Your task to perform on an android device: delete browsing data in the chrome app Image 0: 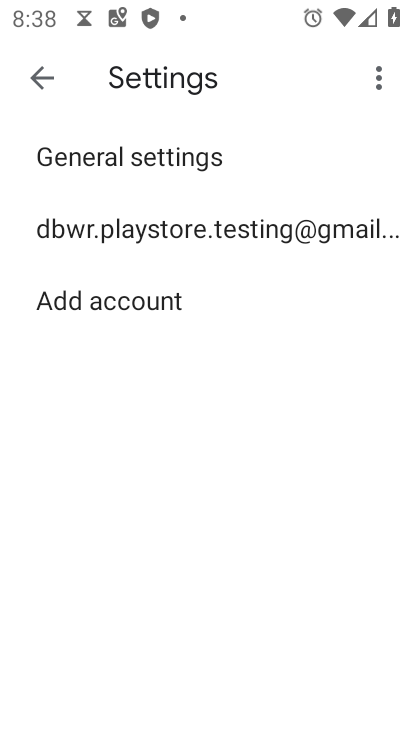
Step 0: press back button
Your task to perform on an android device: delete browsing data in the chrome app Image 1: 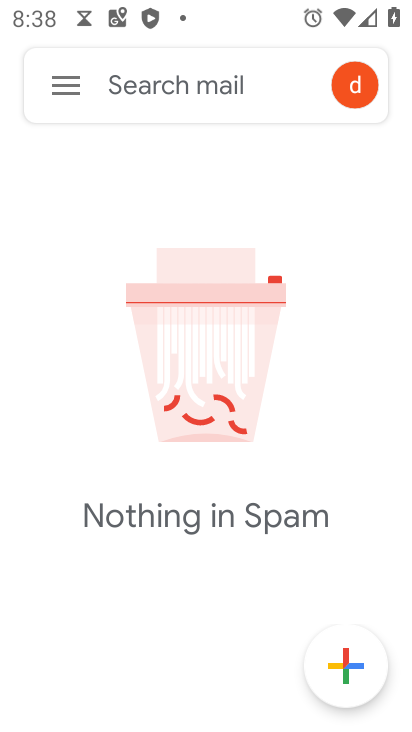
Step 1: press home button
Your task to perform on an android device: delete browsing data in the chrome app Image 2: 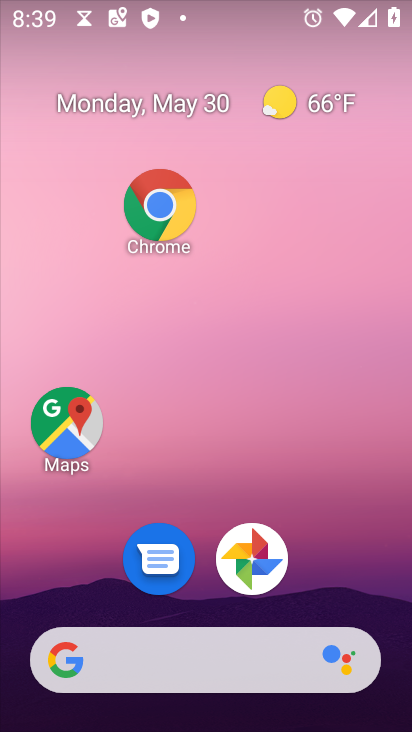
Step 2: drag from (207, 697) to (168, 82)
Your task to perform on an android device: delete browsing data in the chrome app Image 3: 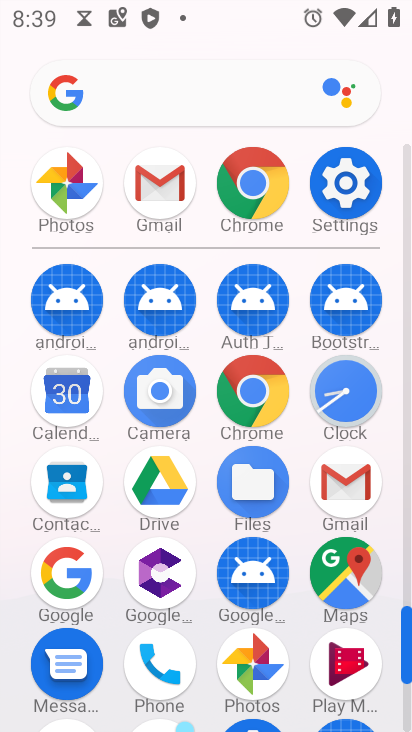
Step 3: click (251, 200)
Your task to perform on an android device: delete browsing data in the chrome app Image 4: 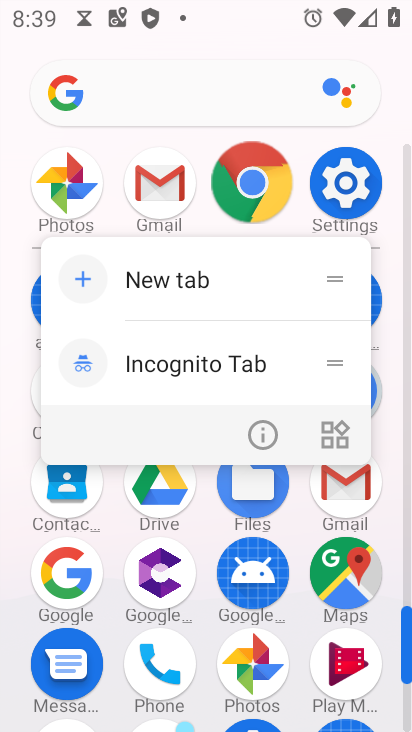
Step 4: click (255, 197)
Your task to perform on an android device: delete browsing data in the chrome app Image 5: 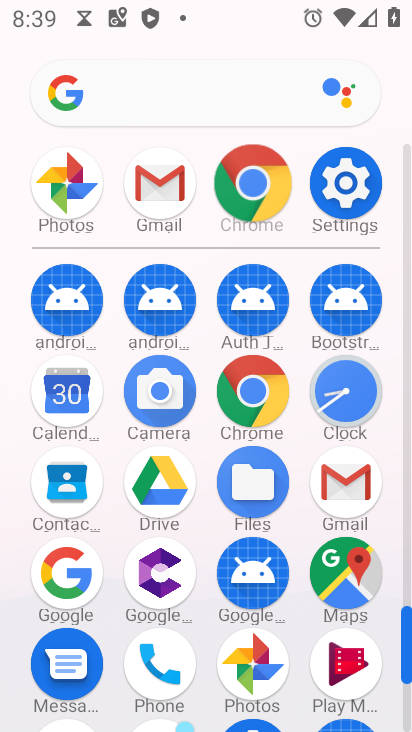
Step 5: click (257, 198)
Your task to perform on an android device: delete browsing data in the chrome app Image 6: 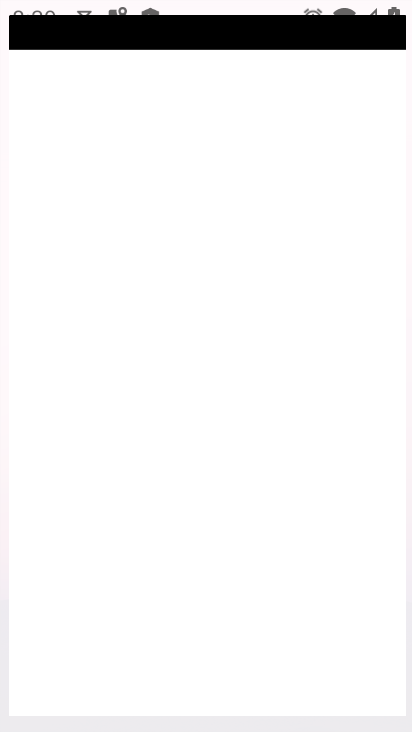
Step 6: click (257, 198)
Your task to perform on an android device: delete browsing data in the chrome app Image 7: 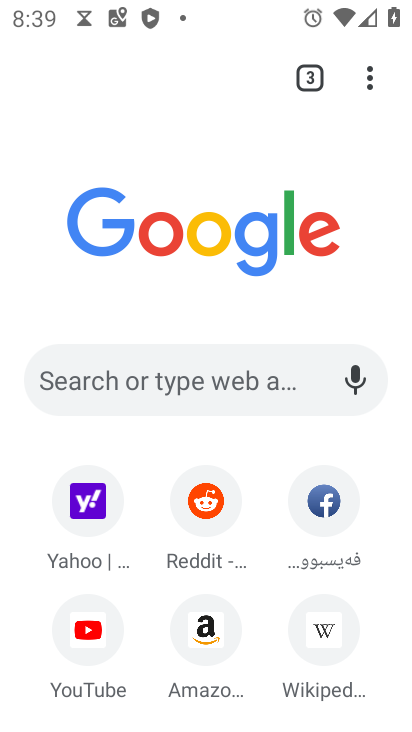
Step 7: drag from (367, 84) to (97, 614)
Your task to perform on an android device: delete browsing data in the chrome app Image 8: 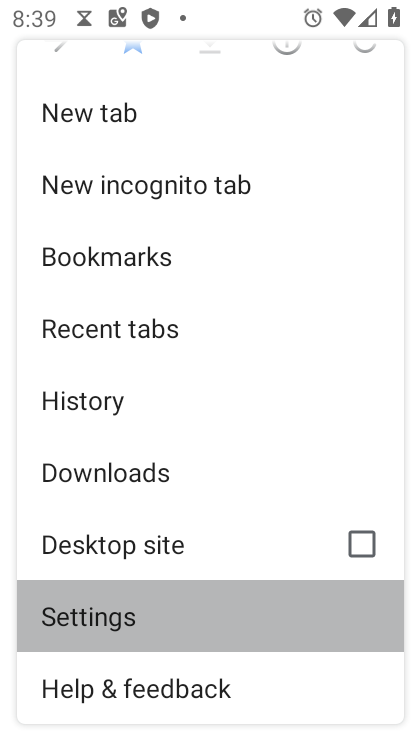
Step 8: click (96, 615)
Your task to perform on an android device: delete browsing data in the chrome app Image 9: 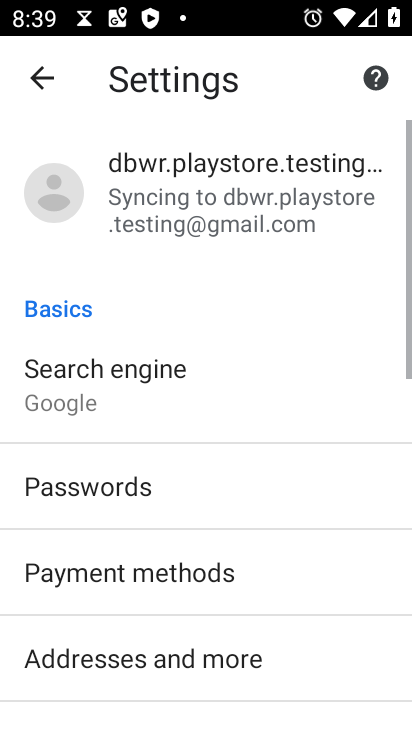
Step 9: drag from (137, 569) to (117, 216)
Your task to perform on an android device: delete browsing data in the chrome app Image 10: 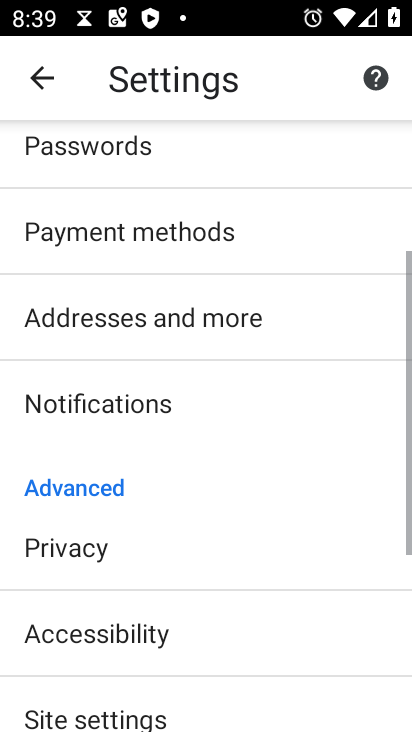
Step 10: drag from (119, 498) to (110, 129)
Your task to perform on an android device: delete browsing data in the chrome app Image 11: 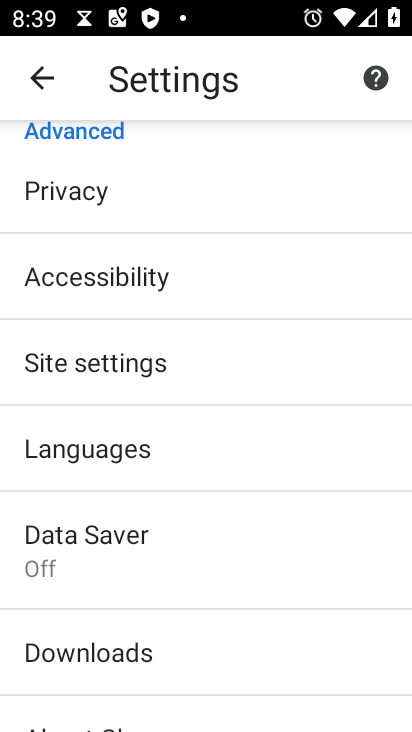
Step 11: click (82, 359)
Your task to perform on an android device: delete browsing data in the chrome app Image 12: 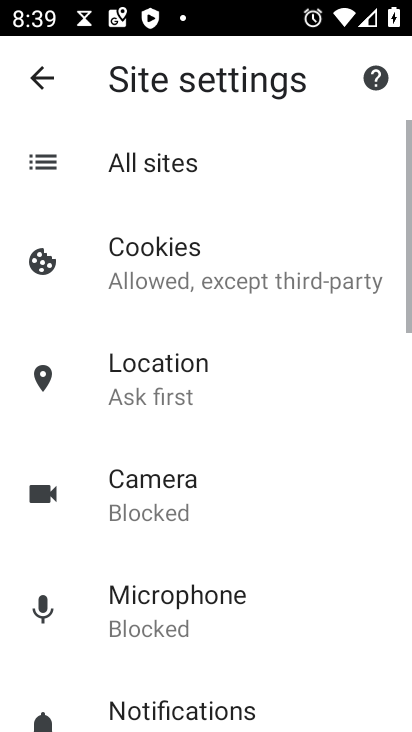
Step 12: click (36, 72)
Your task to perform on an android device: delete browsing data in the chrome app Image 13: 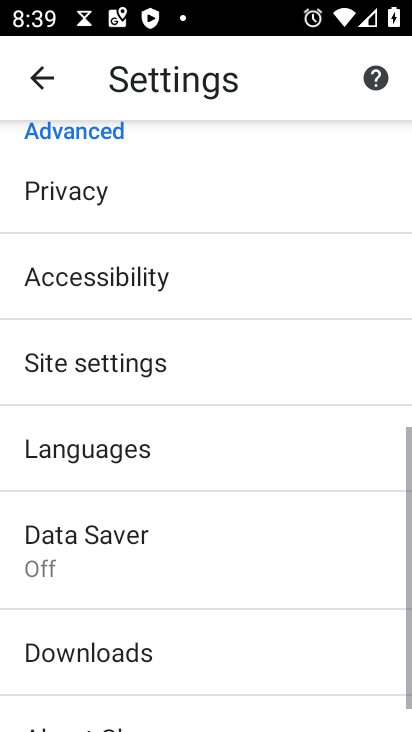
Step 13: drag from (148, 388) to (147, 624)
Your task to perform on an android device: delete browsing data in the chrome app Image 14: 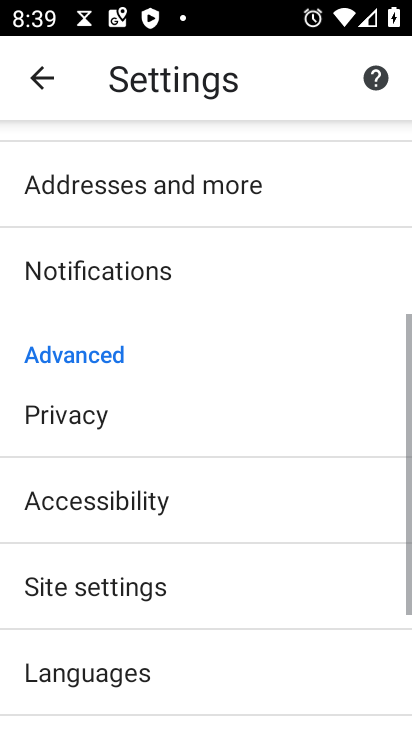
Step 14: drag from (299, 275) to (238, 577)
Your task to perform on an android device: delete browsing data in the chrome app Image 15: 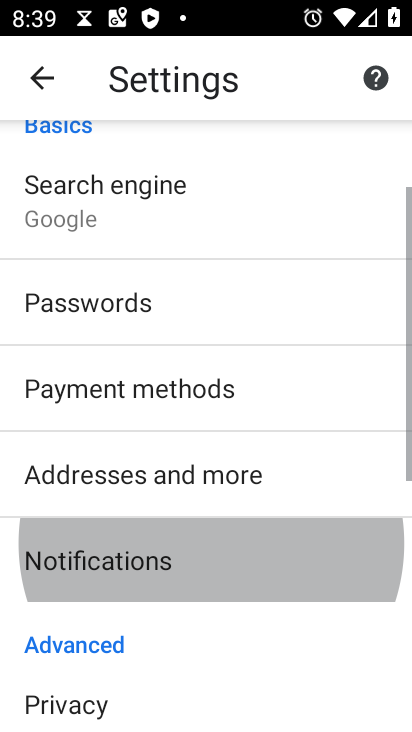
Step 15: drag from (249, 263) to (251, 581)
Your task to perform on an android device: delete browsing data in the chrome app Image 16: 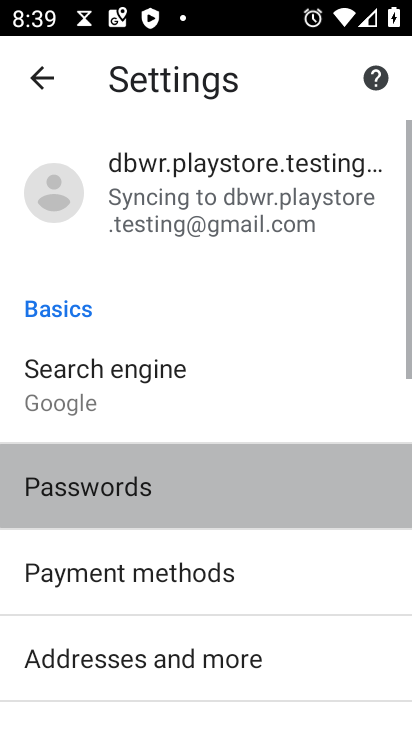
Step 16: drag from (200, 459) to (186, 603)
Your task to perform on an android device: delete browsing data in the chrome app Image 17: 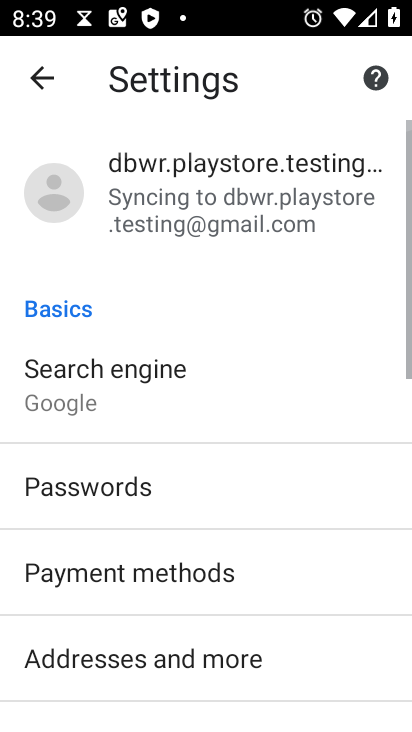
Step 17: drag from (189, 259) to (197, 618)
Your task to perform on an android device: delete browsing data in the chrome app Image 18: 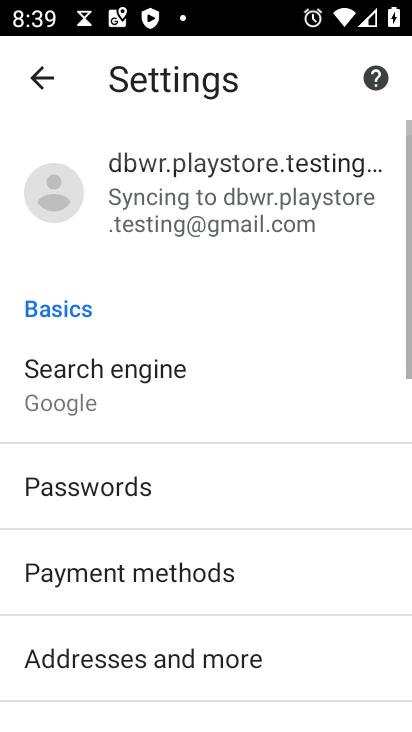
Step 18: drag from (238, 352) to (223, 629)
Your task to perform on an android device: delete browsing data in the chrome app Image 19: 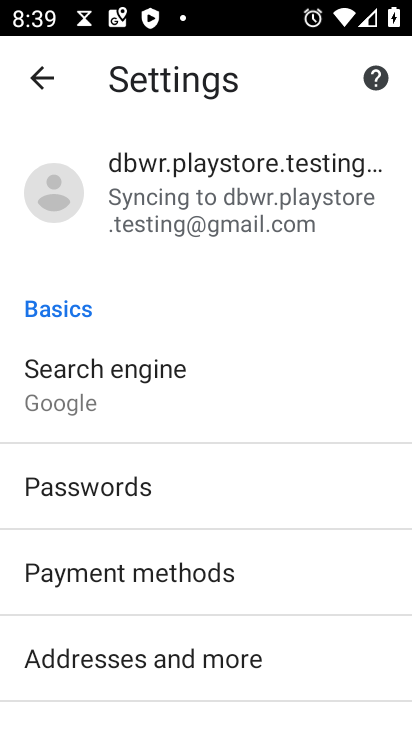
Step 19: drag from (182, 590) to (203, 327)
Your task to perform on an android device: delete browsing data in the chrome app Image 20: 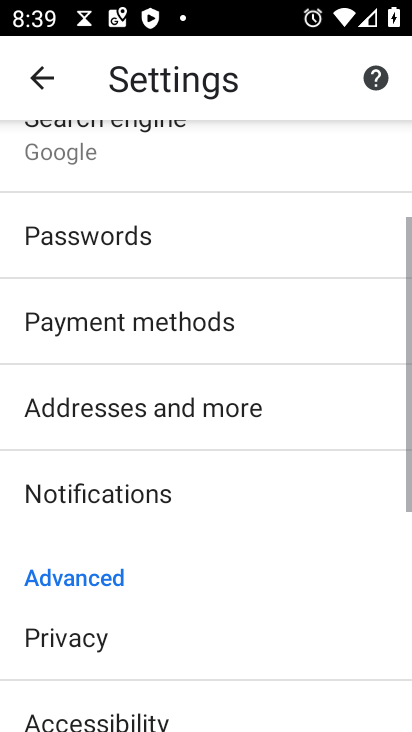
Step 20: drag from (180, 463) to (190, 132)
Your task to perform on an android device: delete browsing data in the chrome app Image 21: 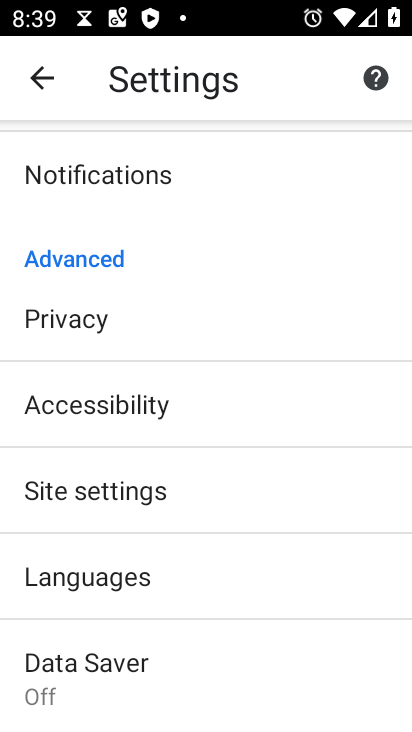
Step 21: drag from (154, 331) to (143, 605)
Your task to perform on an android device: delete browsing data in the chrome app Image 22: 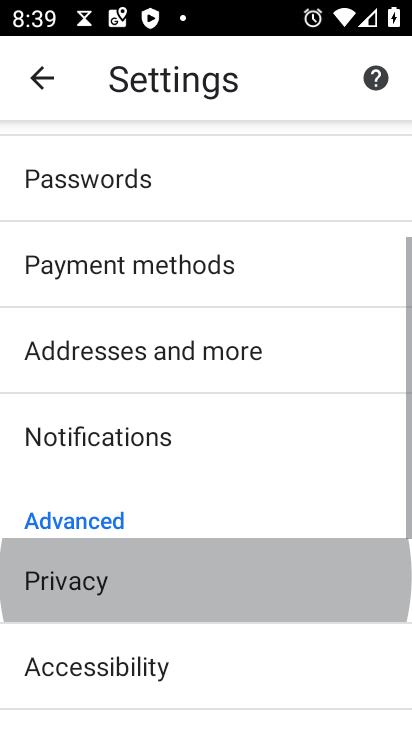
Step 22: drag from (188, 254) to (259, 587)
Your task to perform on an android device: delete browsing data in the chrome app Image 23: 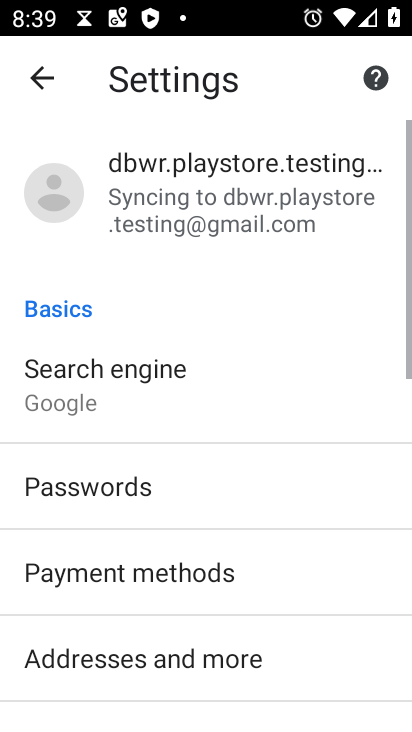
Step 23: drag from (257, 279) to (241, 597)
Your task to perform on an android device: delete browsing data in the chrome app Image 24: 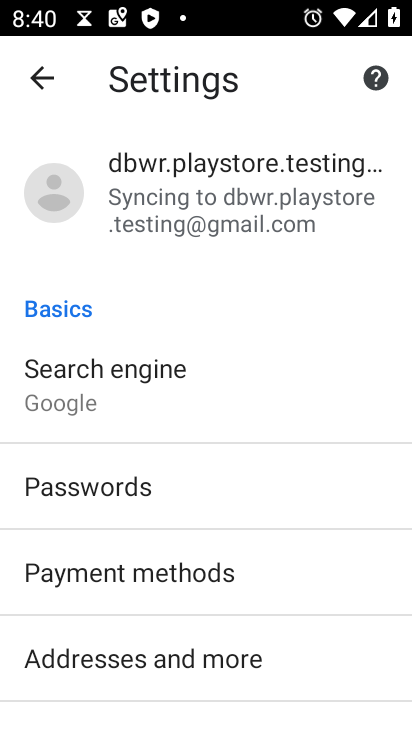
Step 24: drag from (110, 629) to (150, 322)
Your task to perform on an android device: delete browsing data in the chrome app Image 25: 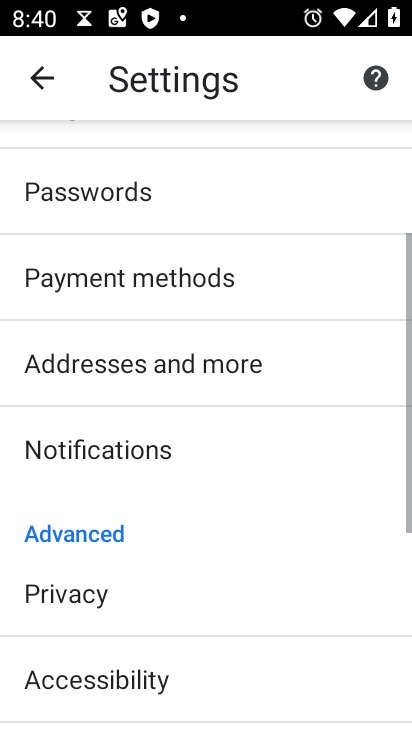
Step 25: drag from (135, 509) to (86, 256)
Your task to perform on an android device: delete browsing data in the chrome app Image 26: 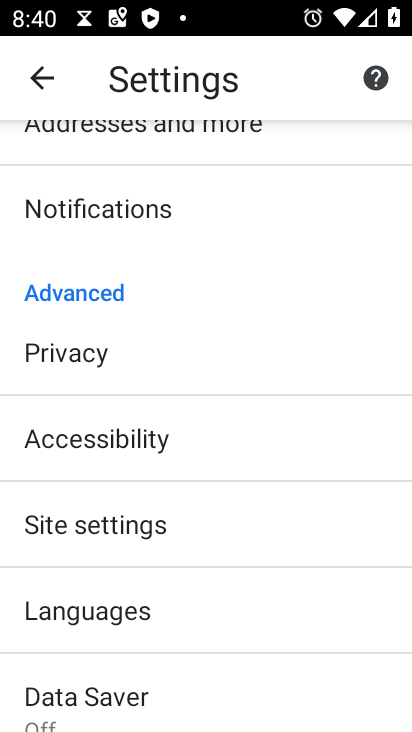
Step 26: drag from (123, 276) to (162, 524)
Your task to perform on an android device: delete browsing data in the chrome app Image 27: 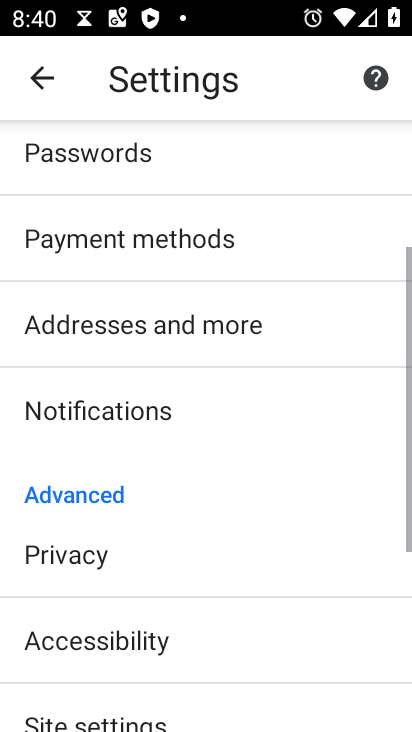
Step 27: drag from (208, 388) to (209, 585)
Your task to perform on an android device: delete browsing data in the chrome app Image 28: 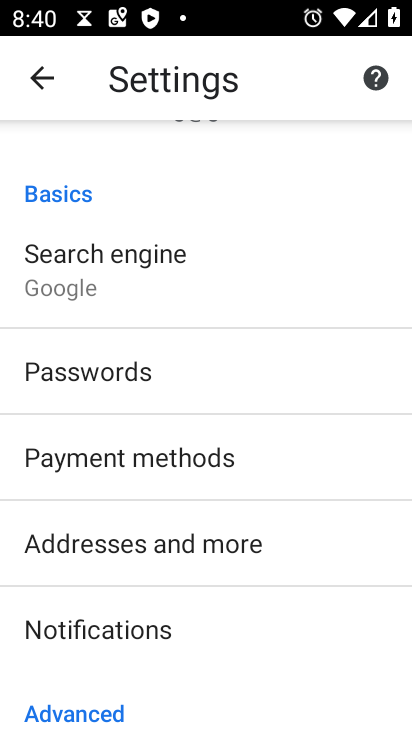
Step 28: click (42, 83)
Your task to perform on an android device: delete browsing data in the chrome app Image 29: 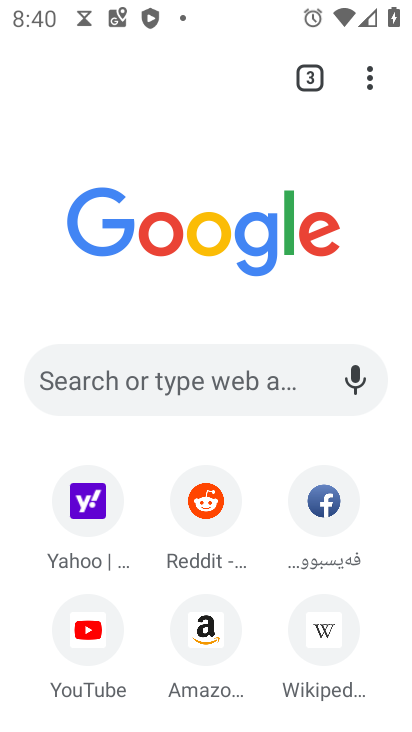
Step 29: click (369, 83)
Your task to perform on an android device: delete browsing data in the chrome app Image 30: 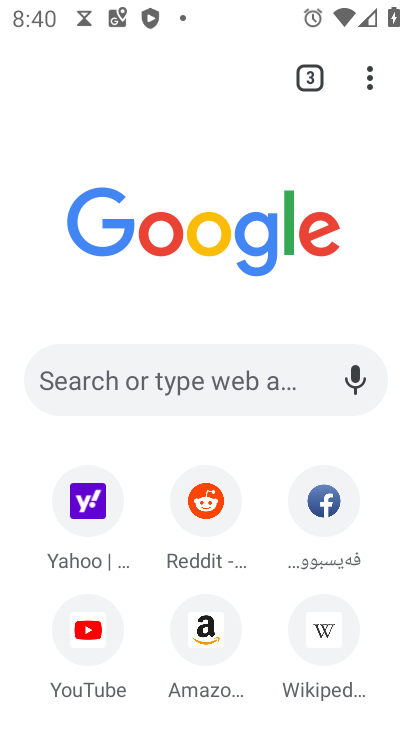
Step 30: click (366, 85)
Your task to perform on an android device: delete browsing data in the chrome app Image 31: 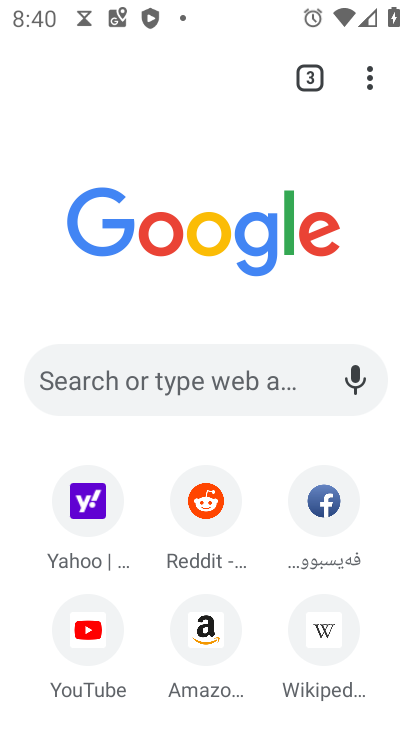
Step 31: click (370, 81)
Your task to perform on an android device: delete browsing data in the chrome app Image 32: 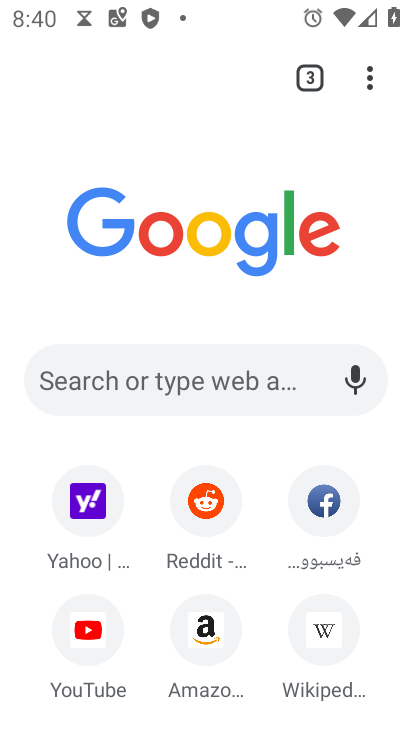
Step 32: click (370, 83)
Your task to perform on an android device: delete browsing data in the chrome app Image 33: 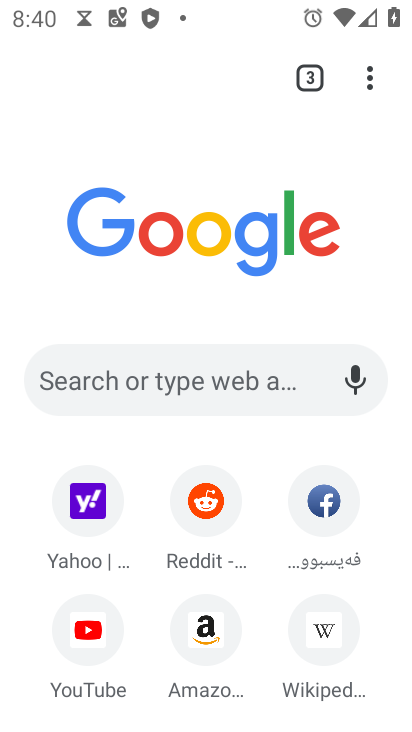
Step 33: drag from (369, 89) to (83, 399)
Your task to perform on an android device: delete browsing data in the chrome app Image 34: 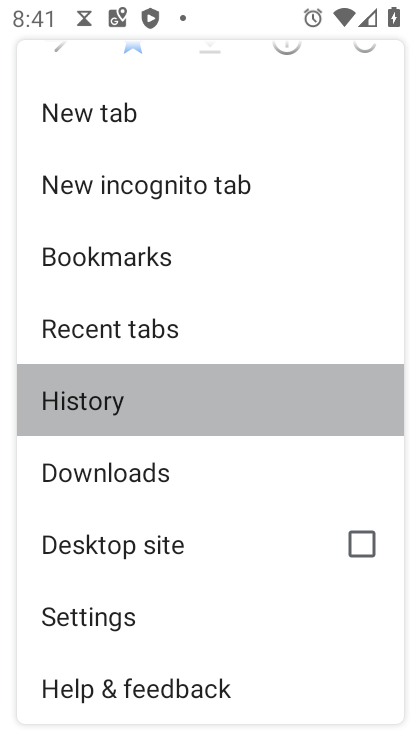
Step 34: click (70, 409)
Your task to perform on an android device: delete browsing data in the chrome app Image 35: 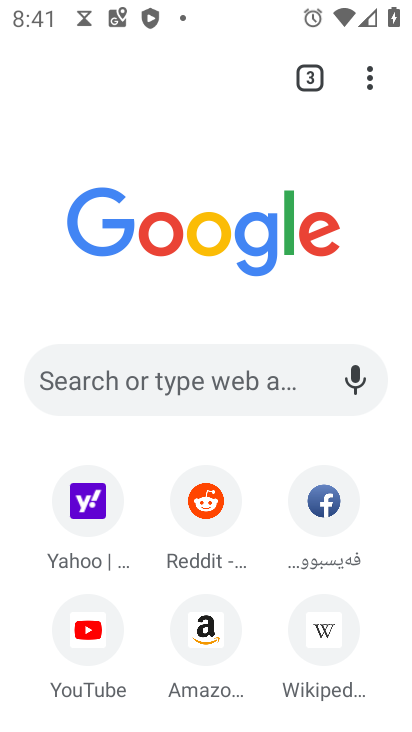
Step 35: click (81, 407)
Your task to perform on an android device: delete browsing data in the chrome app Image 36: 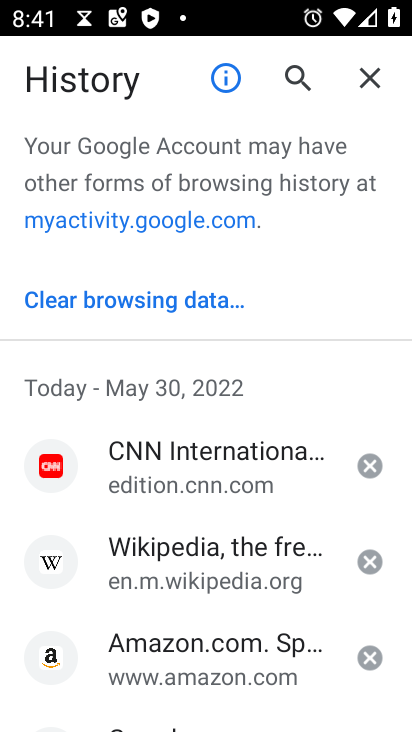
Step 36: drag from (198, 526) to (161, 129)
Your task to perform on an android device: delete browsing data in the chrome app Image 37: 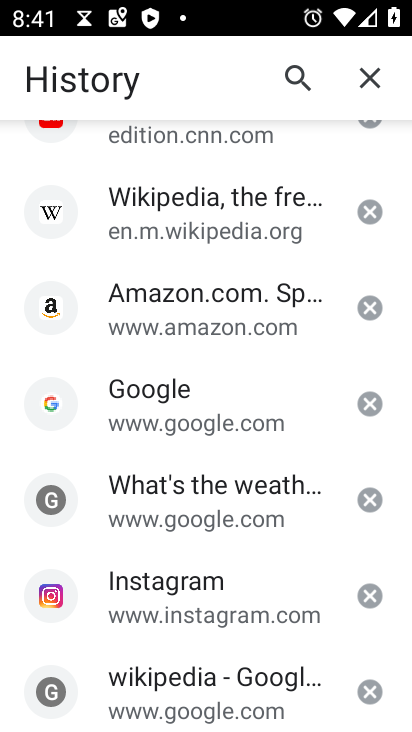
Step 37: drag from (173, 490) to (193, 87)
Your task to perform on an android device: delete browsing data in the chrome app Image 38: 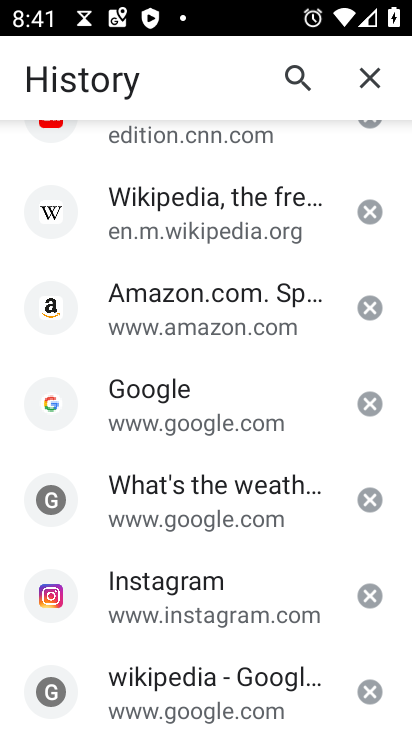
Step 38: drag from (139, 452) to (130, 205)
Your task to perform on an android device: delete browsing data in the chrome app Image 39: 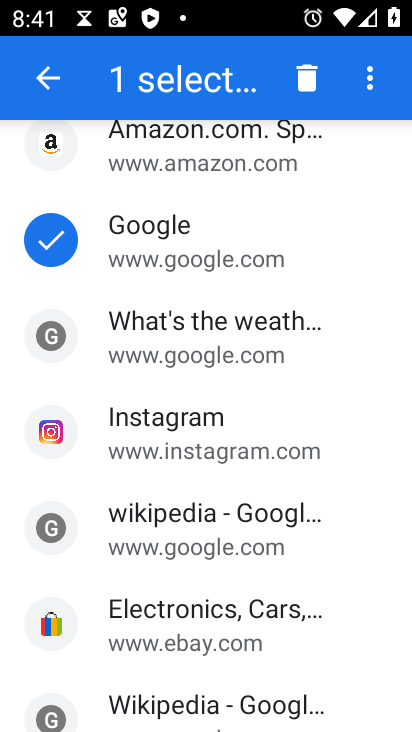
Step 39: click (37, 73)
Your task to perform on an android device: delete browsing data in the chrome app Image 40: 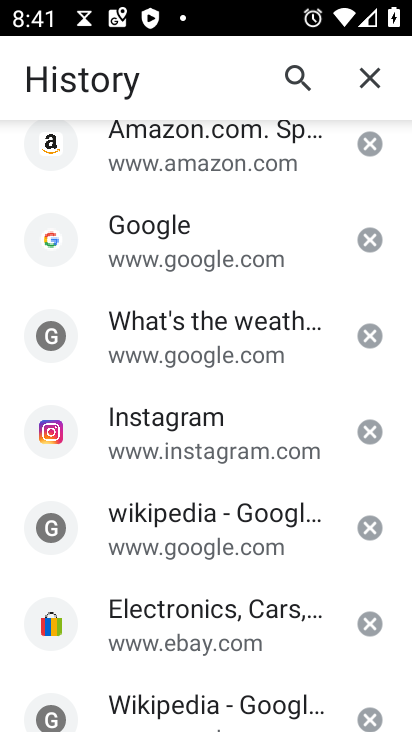
Step 40: drag from (197, 452) to (197, 502)
Your task to perform on an android device: delete browsing data in the chrome app Image 41: 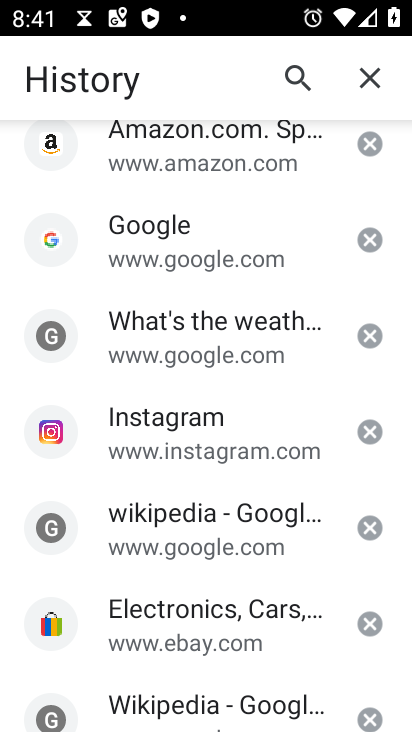
Step 41: drag from (276, 386) to (287, 541)
Your task to perform on an android device: delete browsing data in the chrome app Image 42: 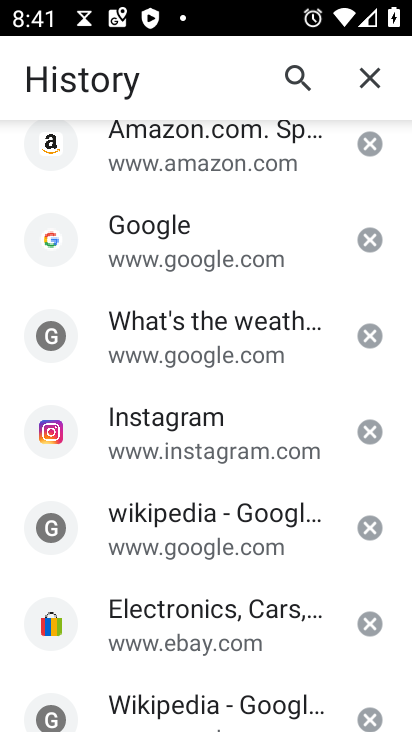
Step 42: drag from (281, 203) to (224, 669)
Your task to perform on an android device: delete browsing data in the chrome app Image 43: 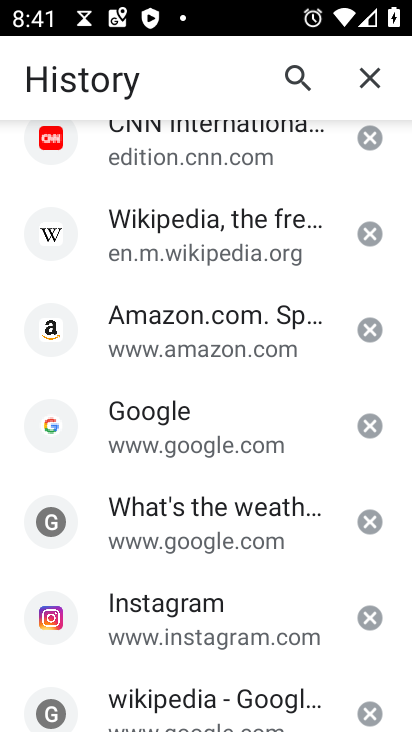
Step 43: drag from (219, 244) to (176, 688)
Your task to perform on an android device: delete browsing data in the chrome app Image 44: 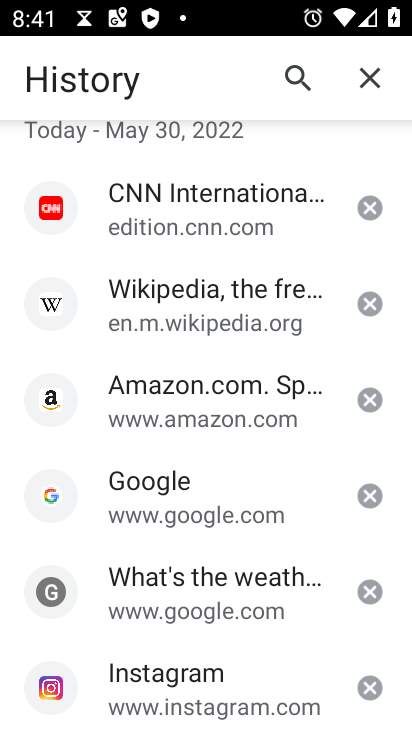
Step 44: drag from (195, 295) to (224, 645)
Your task to perform on an android device: delete browsing data in the chrome app Image 45: 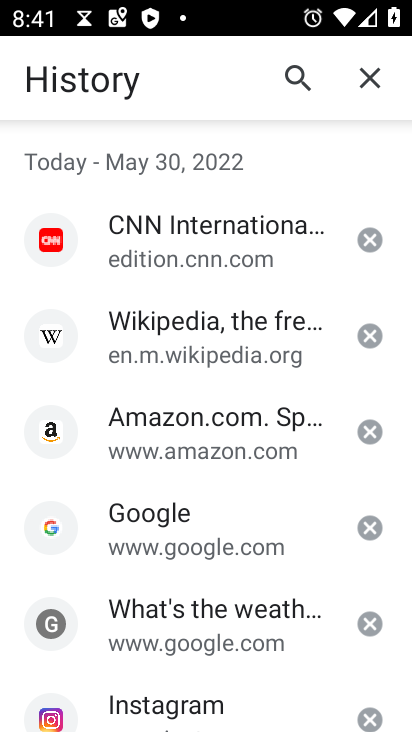
Step 45: drag from (207, 598) to (180, 724)
Your task to perform on an android device: delete browsing data in the chrome app Image 46: 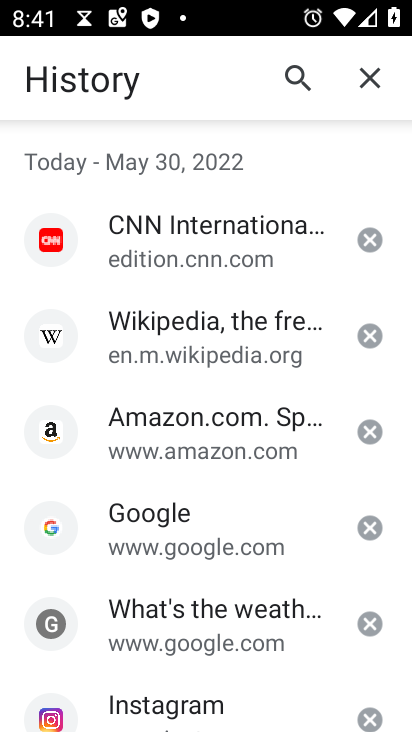
Step 46: drag from (218, 281) to (238, 666)
Your task to perform on an android device: delete browsing data in the chrome app Image 47: 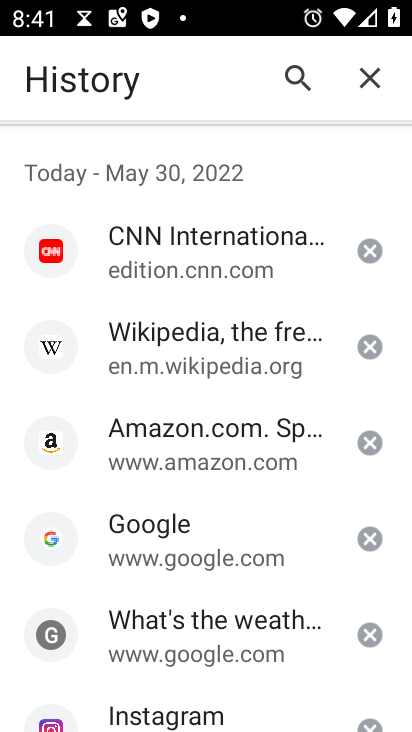
Step 47: drag from (299, 358) to (276, 637)
Your task to perform on an android device: delete browsing data in the chrome app Image 48: 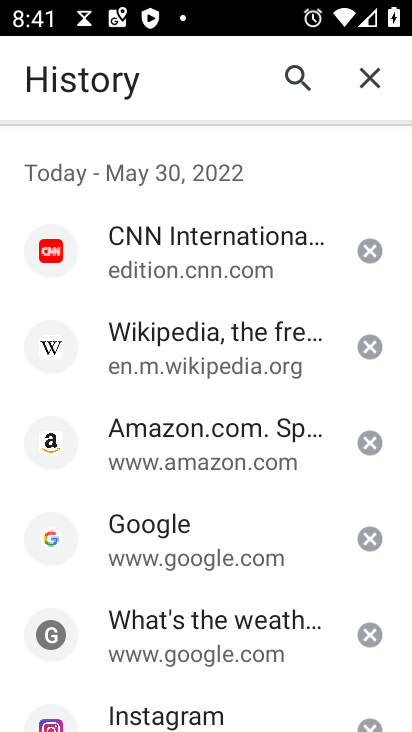
Step 48: press back button
Your task to perform on an android device: delete browsing data in the chrome app Image 49: 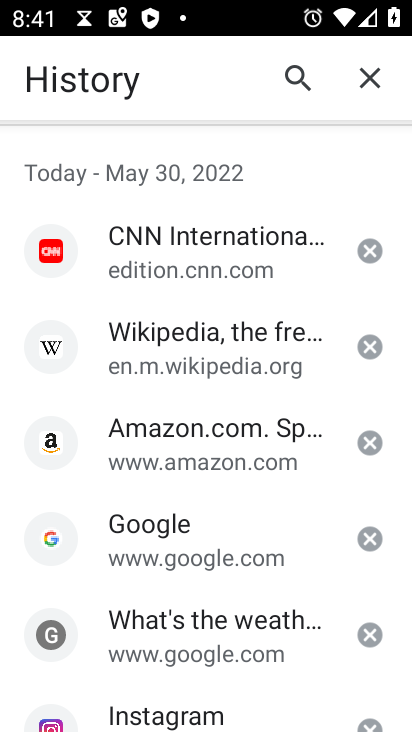
Step 49: press back button
Your task to perform on an android device: delete browsing data in the chrome app Image 50: 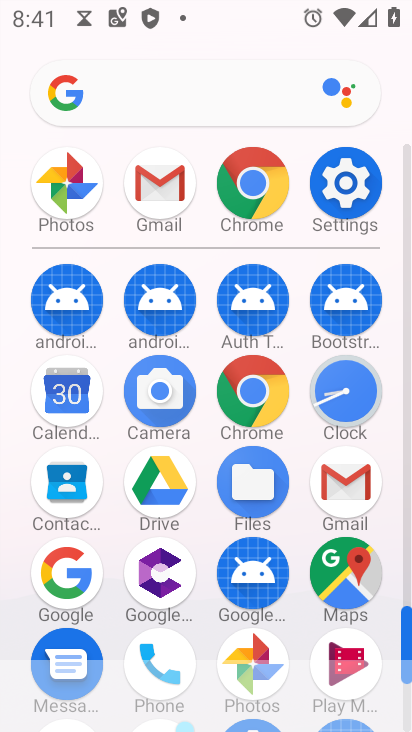
Step 50: drag from (211, 93) to (275, 514)
Your task to perform on an android device: delete browsing data in the chrome app Image 51: 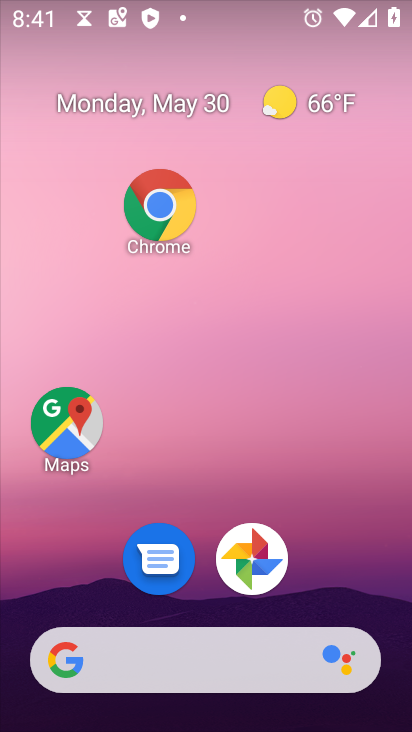
Step 51: drag from (248, 382) to (255, 568)
Your task to perform on an android device: delete browsing data in the chrome app Image 52: 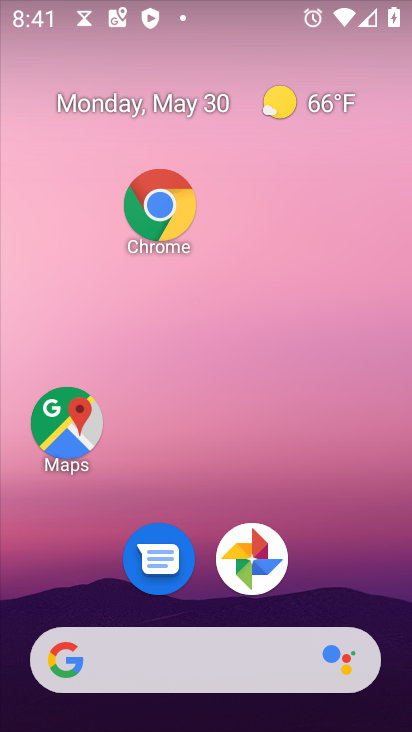
Step 52: drag from (195, 482) to (291, 497)
Your task to perform on an android device: delete browsing data in the chrome app Image 53: 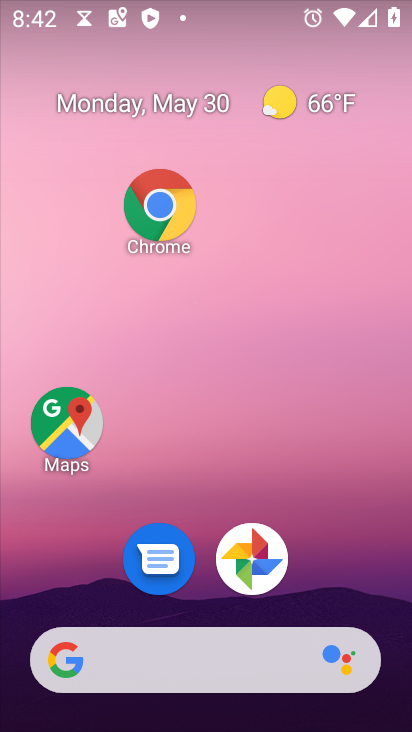
Step 53: drag from (271, 118) to (355, 554)
Your task to perform on an android device: delete browsing data in the chrome app Image 54: 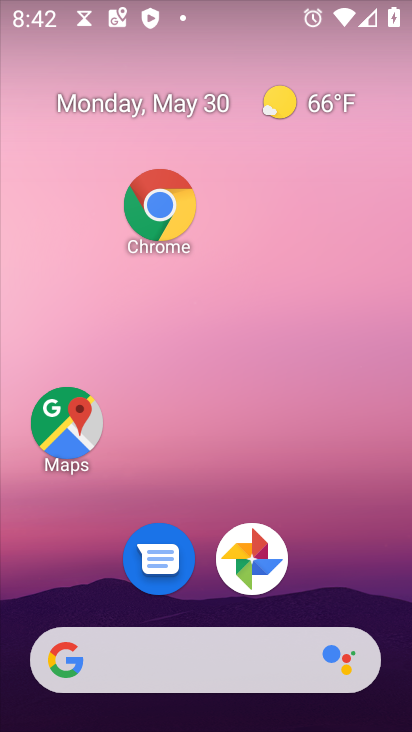
Step 54: drag from (287, 175) to (289, 566)
Your task to perform on an android device: delete browsing data in the chrome app Image 55: 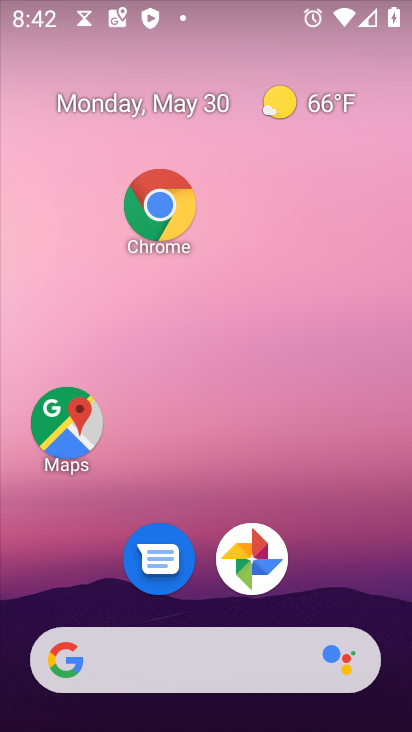
Step 55: drag from (201, 637) to (156, 67)
Your task to perform on an android device: delete browsing data in the chrome app Image 56: 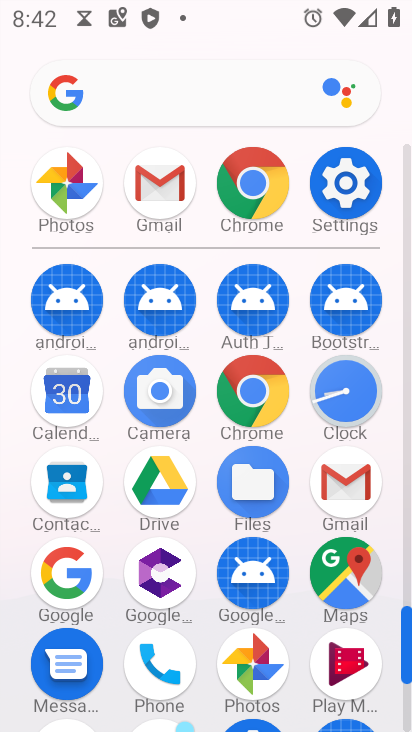
Step 56: click (255, 392)
Your task to perform on an android device: delete browsing data in the chrome app Image 57: 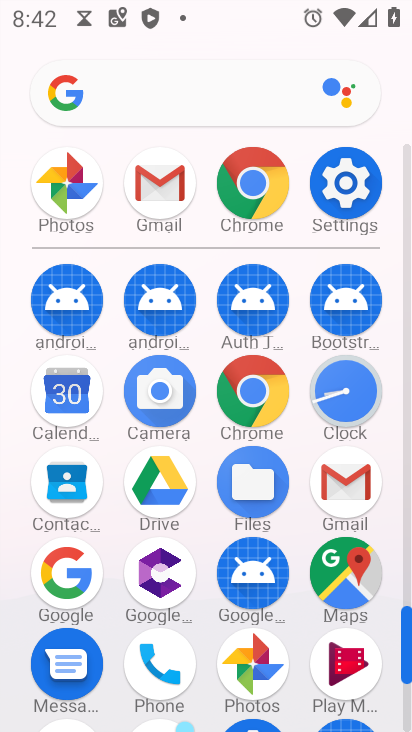
Step 57: click (255, 392)
Your task to perform on an android device: delete browsing data in the chrome app Image 58: 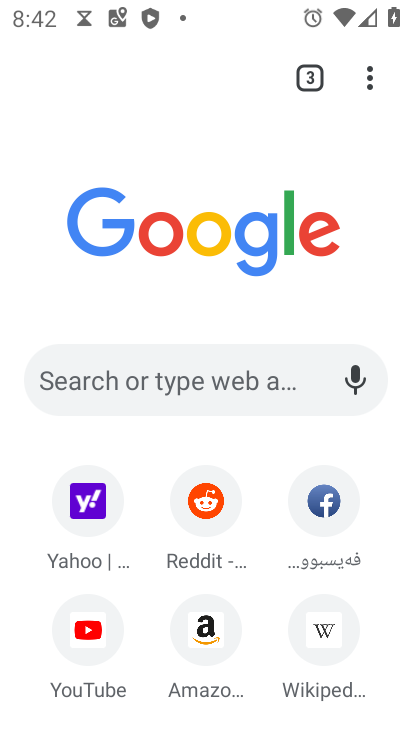
Step 58: click (257, 388)
Your task to perform on an android device: delete browsing data in the chrome app Image 59: 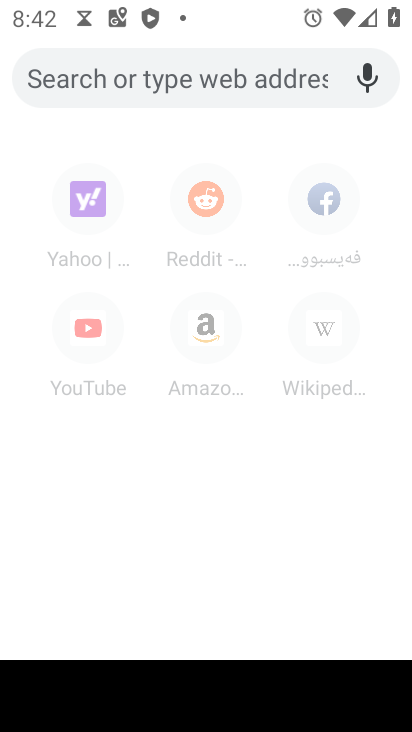
Step 59: press back button
Your task to perform on an android device: delete browsing data in the chrome app Image 60: 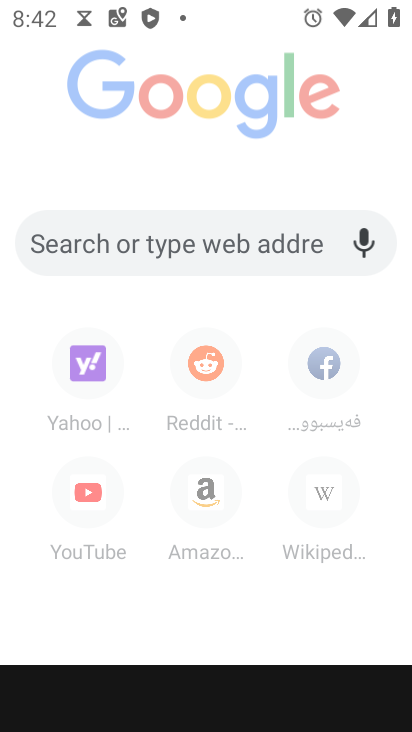
Step 60: press back button
Your task to perform on an android device: delete browsing data in the chrome app Image 61: 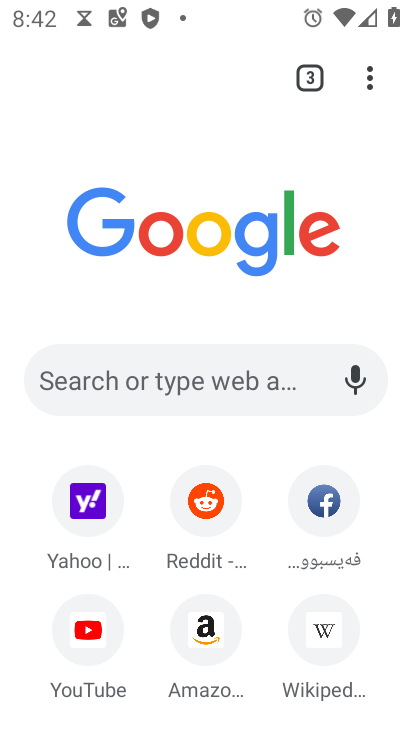
Step 61: press back button
Your task to perform on an android device: delete browsing data in the chrome app Image 62: 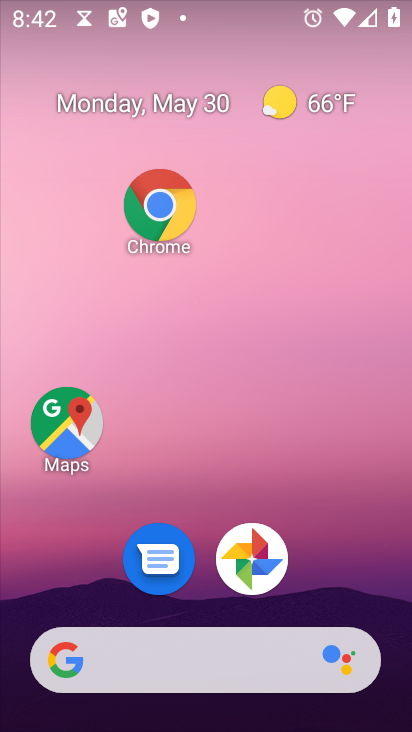
Step 62: drag from (262, 640) to (142, 87)
Your task to perform on an android device: delete browsing data in the chrome app Image 63: 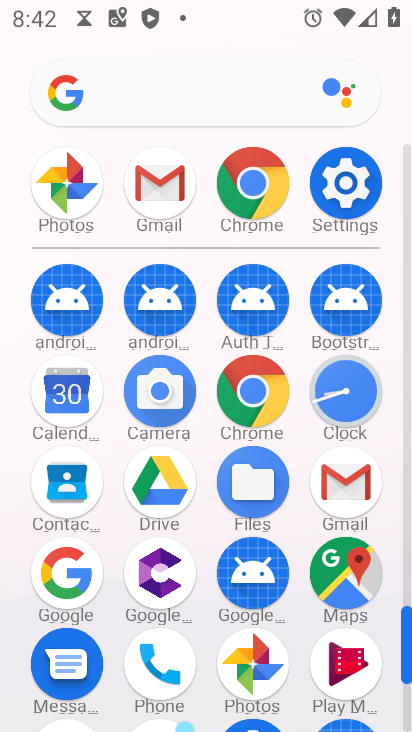
Step 63: click (249, 184)
Your task to perform on an android device: delete browsing data in the chrome app Image 64: 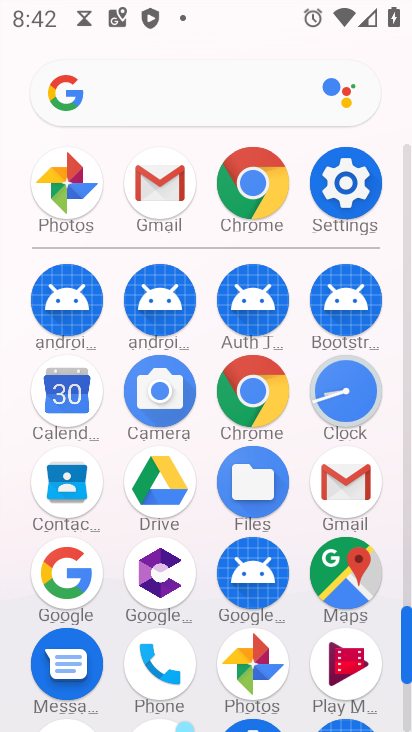
Step 64: click (249, 184)
Your task to perform on an android device: delete browsing data in the chrome app Image 65: 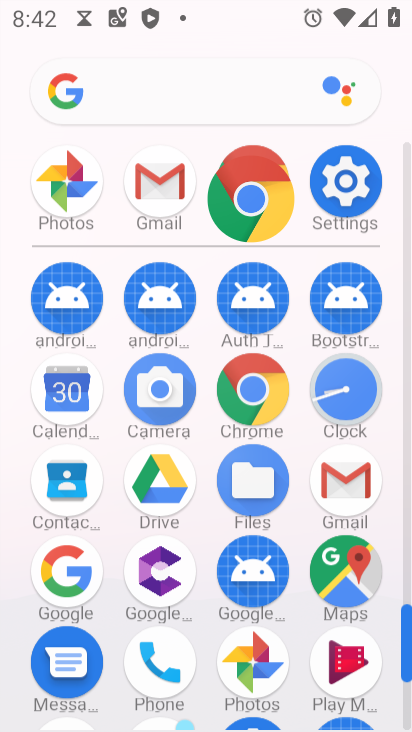
Step 65: click (249, 184)
Your task to perform on an android device: delete browsing data in the chrome app Image 66: 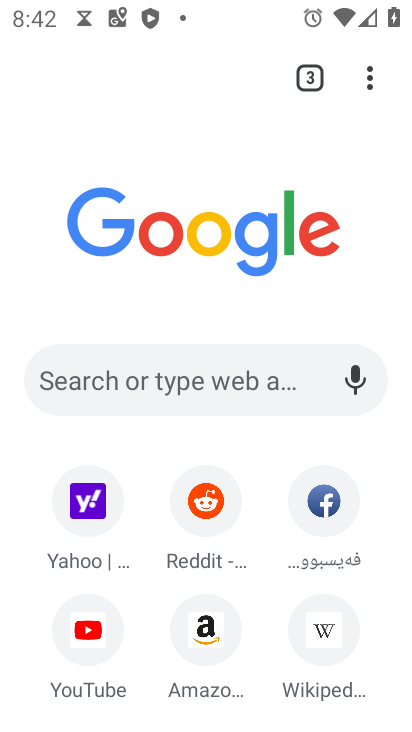
Step 66: drag from (370, 78) to (102, 420)
Your task to perform on an android device: delete browsing data in the chrome app Image 67: 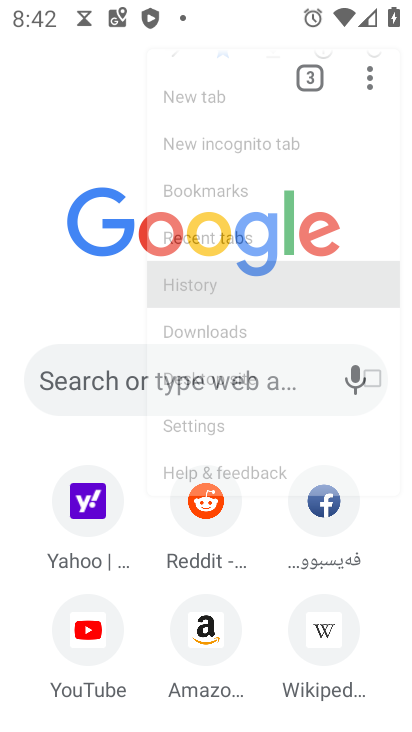
Step 67: click (102, 420)
Your task to perform on an android device: delete browsing data in the chrome app Image 68: 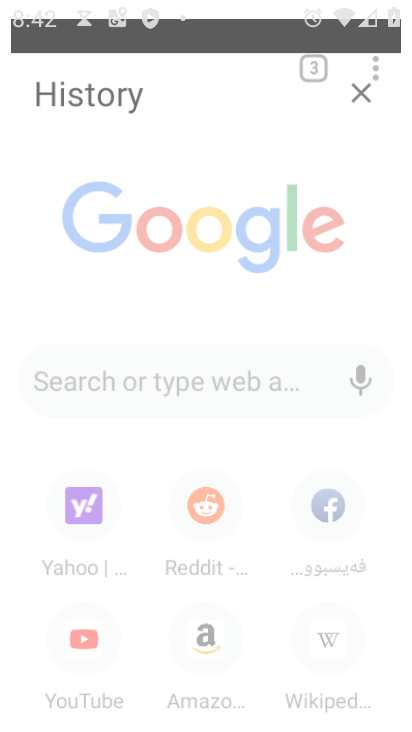
Step 68: click (112, 417)
Your task to perform on an android device: delete browsing data in the chrome app Image 69: 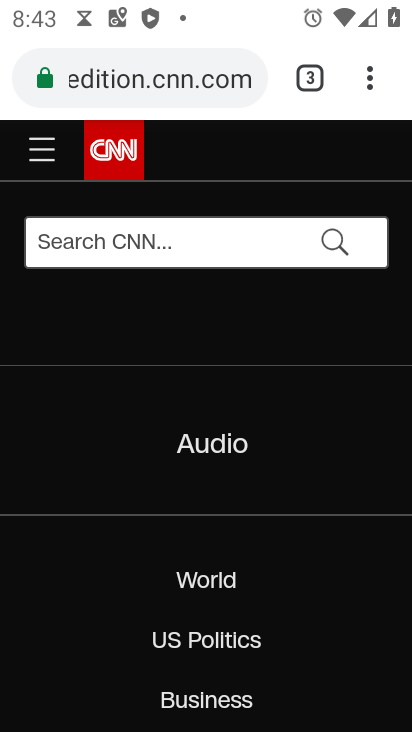
Step 69: drag from (367, 91) to (87, 440)
Your task to perform on an android device: delete browsing data in the chrome app Image 70: 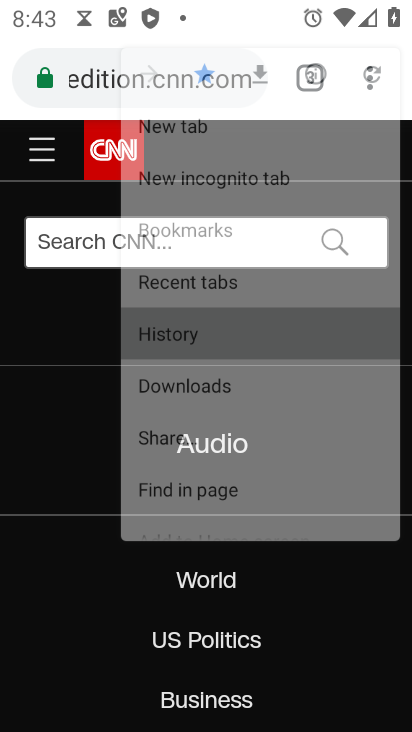
Step 70: click (87, 440)
Your task to perform on an android device: delete browsing data in the chrome app Image 71: 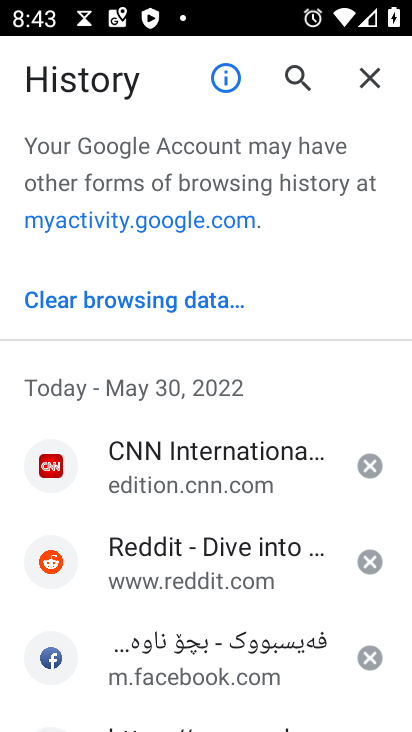
Step 71: drag from (196, 565) to (219, 301)
Your task to perform on an android device: delete browsing data in the chrome app Image 72: 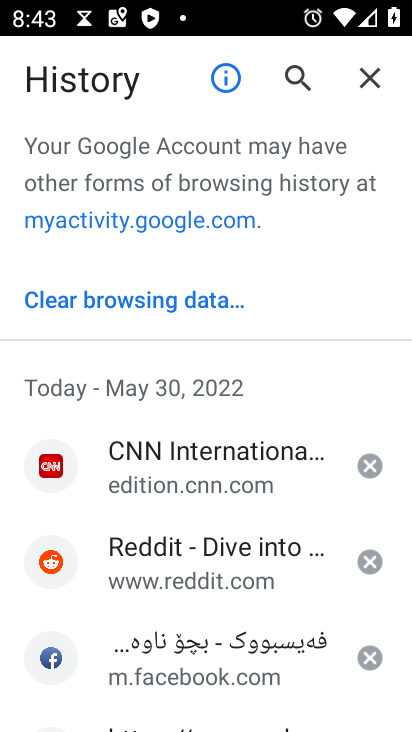
Step 72: drag from (267, 471) to (243, 203)
Your task to perform on an android device: delete browsing data in the chrome app Image 73: 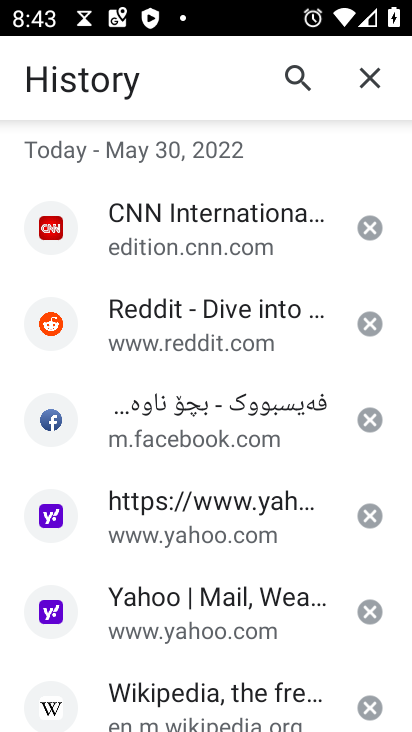
Step 73: drag from (228, 472) to (219, 135)
Your task to perform on an android device: delete browsing data in the chrome app Image 74: 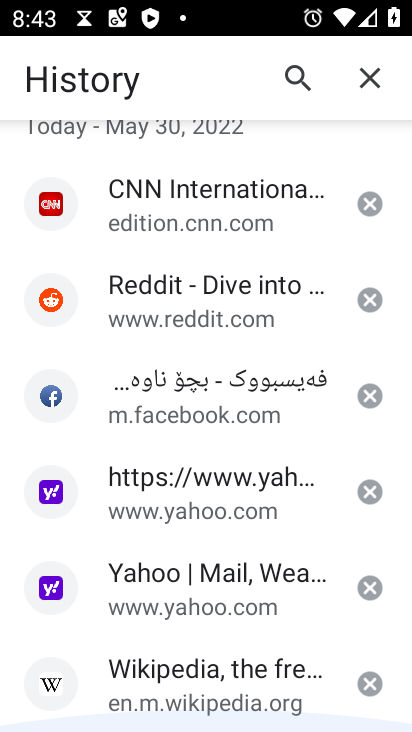
Step 74: drag from (224, 479) to (224, 192)
Your task to perform on an android device: delete browsing data in the chrome app Image 75: 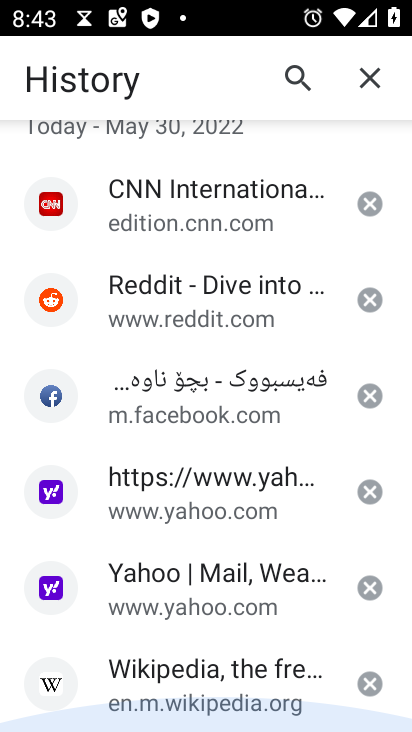
Step 75: drag from (222, 474) to (190, 159)
Your task to perform on an android device: delete browsing data in the chrome app Image 76: 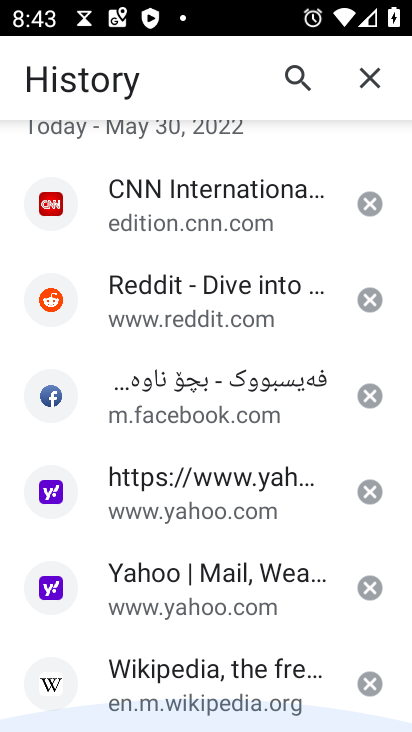
Step 76: drag from (236, 534) to (227, 270)
Your task to perform on an android device: delete browsing data in the chrome app Image 77: 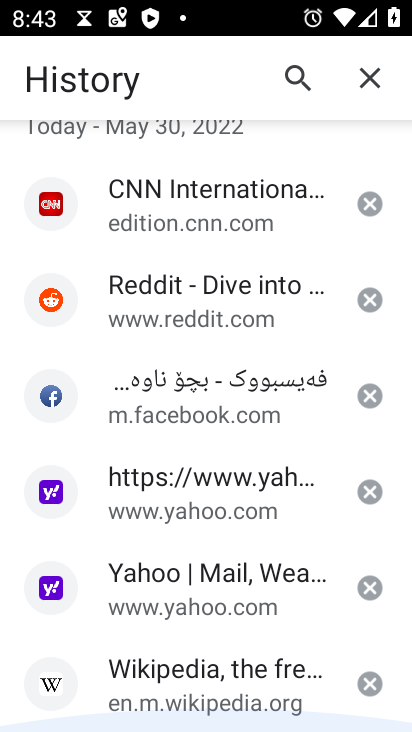
Step 77: drag from (244, 603) to (263, 238)
Your task to perform on an android device: delete browsing data in the chrome app Image 78: 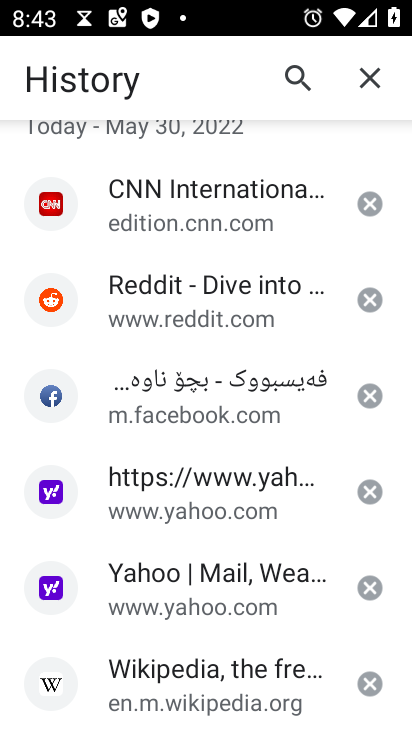
Step 78: drag from (176, 307) to (196, 517)
Your task to perform on an android device: delete browsing data in the chrome app Image 79: 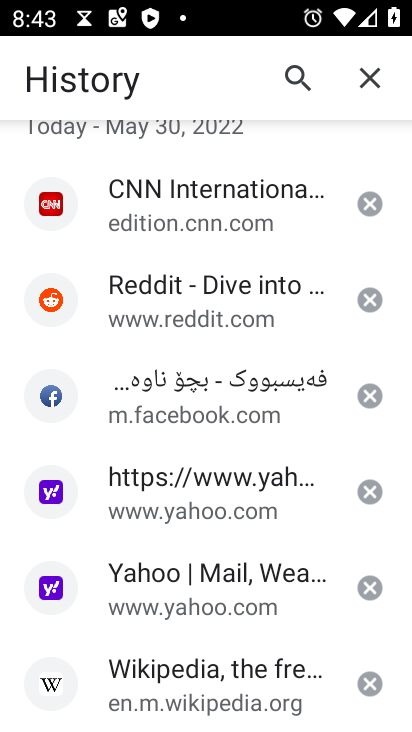
Step 79: drag from (196, 255) to (280, 572)
Your task to perform on an android device: delete browsing data in the chrome app Image 80: 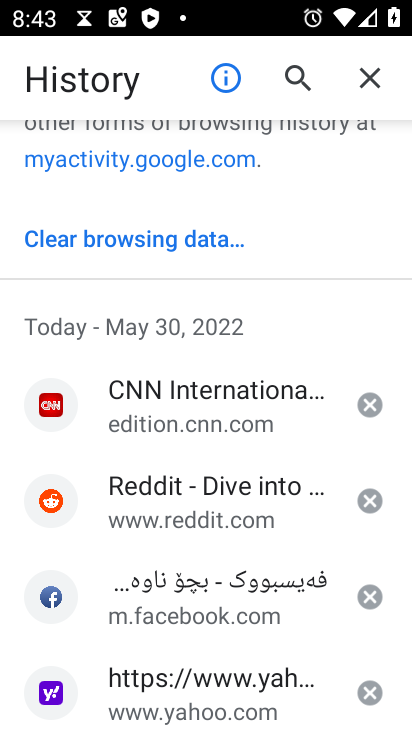
Step 80: drag from (217, 260) to (236, 649)
Your task to perform on an android device: delete browsing data in the chrome app Image 81: 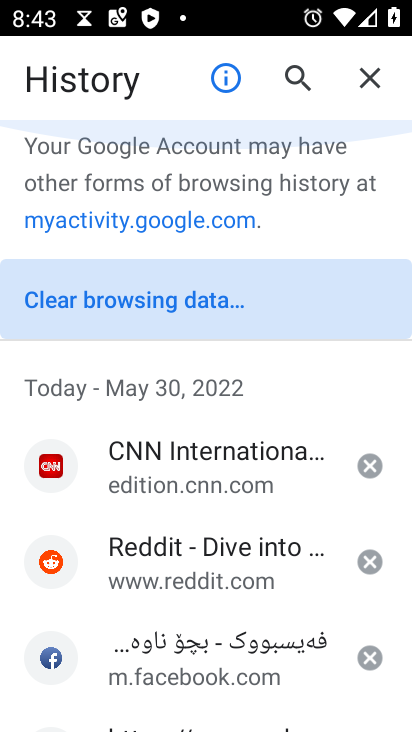
Step 81: click (233, 531)
Your task to perform on an android device: delete browsing data in the chrome app Image 82: 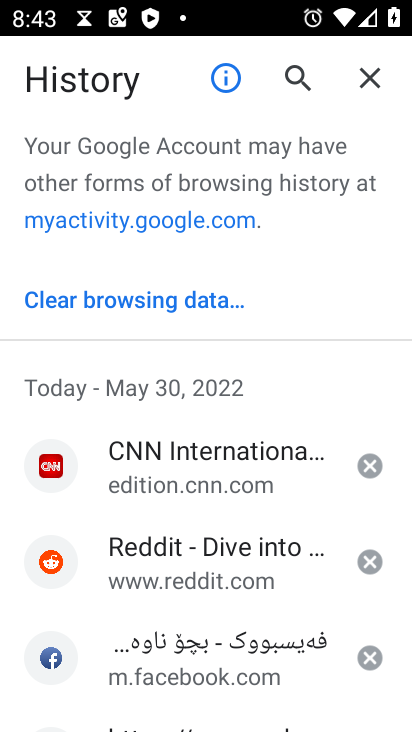
Step 82: click (135, 307)
Your task to perform on an android device: delete browsing data in the chrome app Image 83: 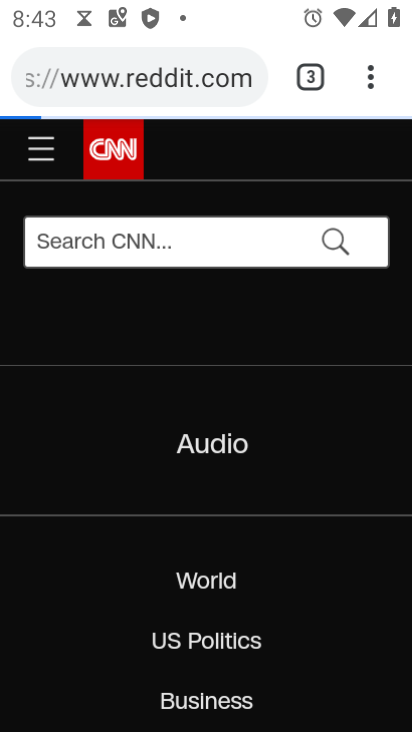
Step 83: click (135, 304)
Your task to perform on an android device: delete browsing data in the chrome app Image 84: 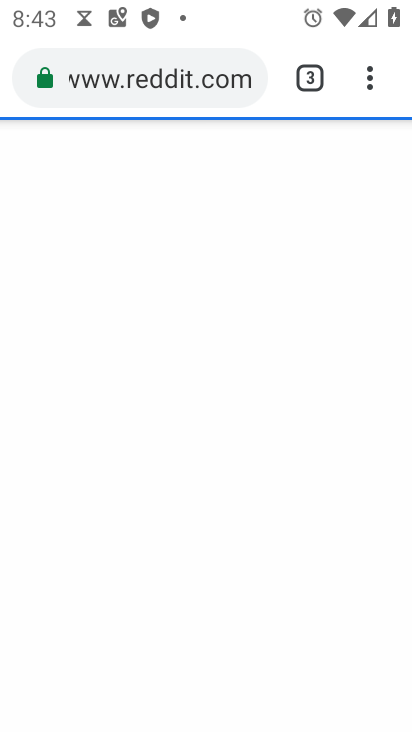
Step 84: click (135, 303)
Your task to perform on an android device: delete browsing data in the chrome app Image 85: 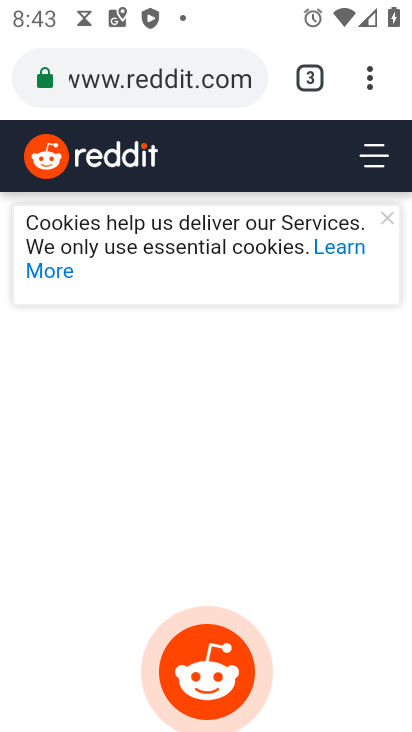
Step 85: task complete